Your task to perform on an android device: Open Youtube and go to the subscriptions tab Image 0: 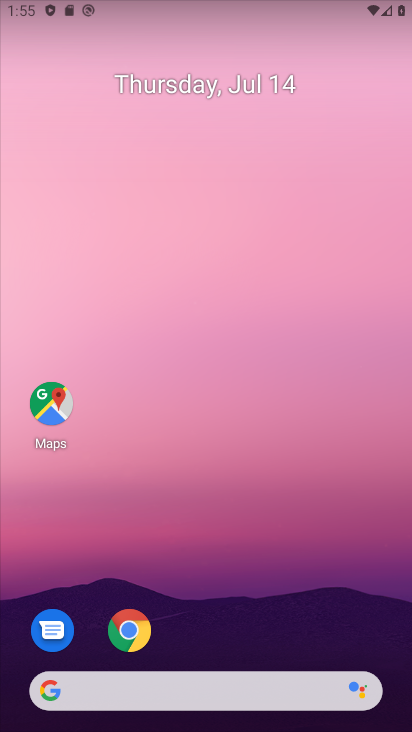
Step 0: press home button
Your task to perform on an android device: Open Youtube and go to the subscriptions tab Image 1: 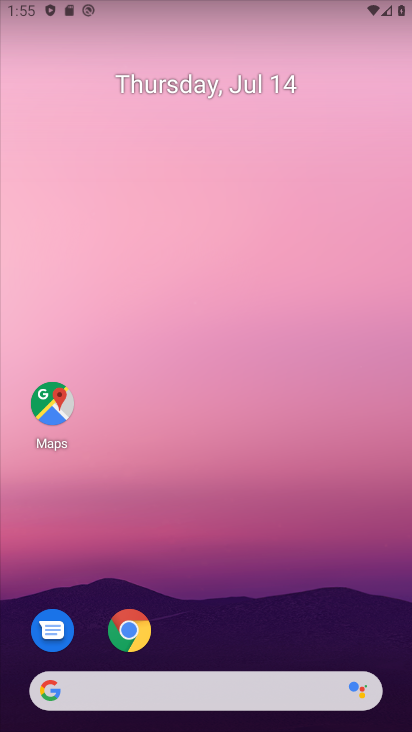
Step 1: drag from (196, 646) to (201, 51)
Your task to perform on an android device: Open Youtube and go to the subscriptions tab Image 2: 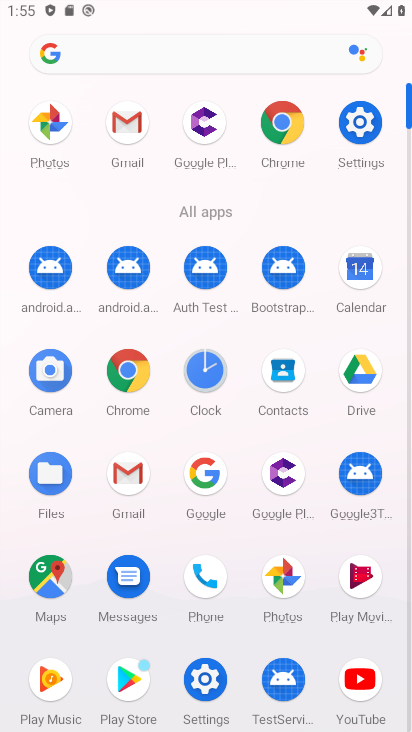
Step 2: click (353, 670)
Your task to perform on an android device: Open Youtube and go to the subscriptions tab Image 3: 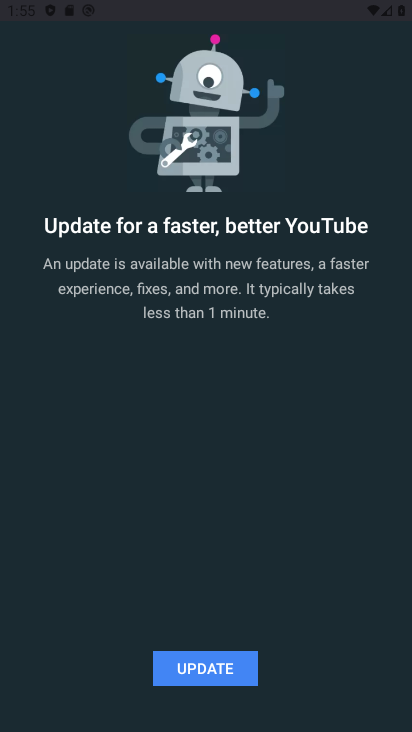
Step 3: click (209, 668)
Your task to perform on an android device: Open Youtube and go to the subscriptions tab Image 4: 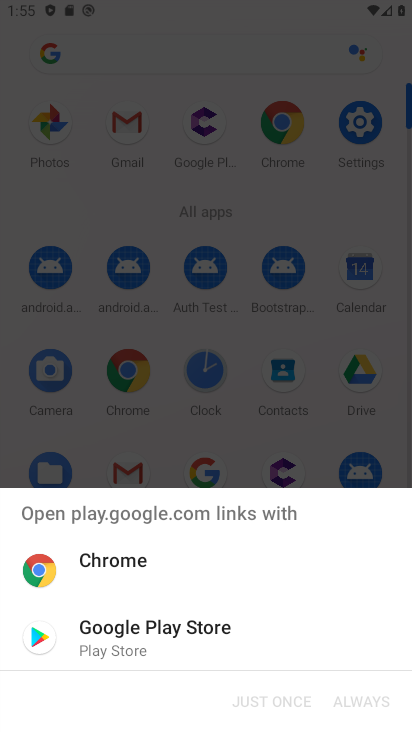
Step 4: click (170, 643)
Your task to perform on an android device: Open Youtube and go to the subscriptions tab Image 5: 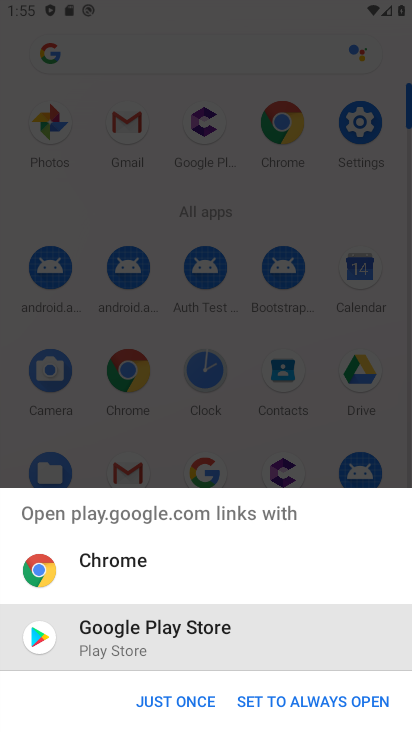
Step 5: click (170, 699)
Your task to perform on an android device: Open Youtube and go to the subscriptions tab Image 6: 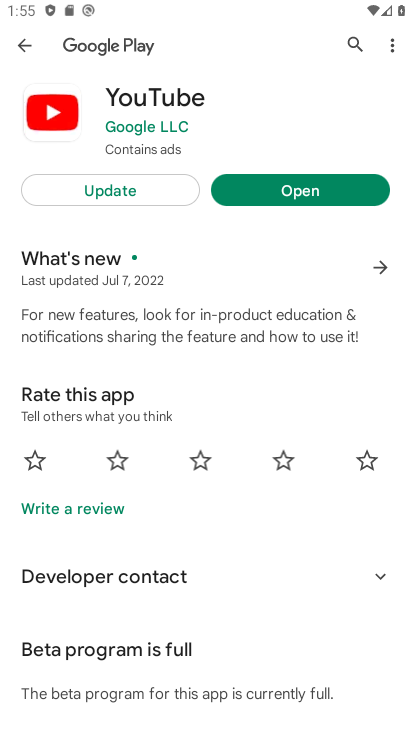
Step 6: click (110, 187)
Your task to perform on an android device: Open Youtube and go to the subscriptions tab Image 7: 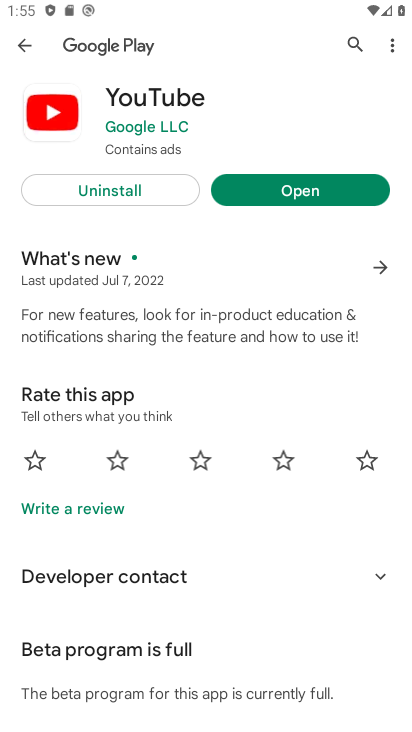
Step 7: click (305, 185)
Your task to perform on an android device: Open Youtube and go to the subscriptions tab Image 8: 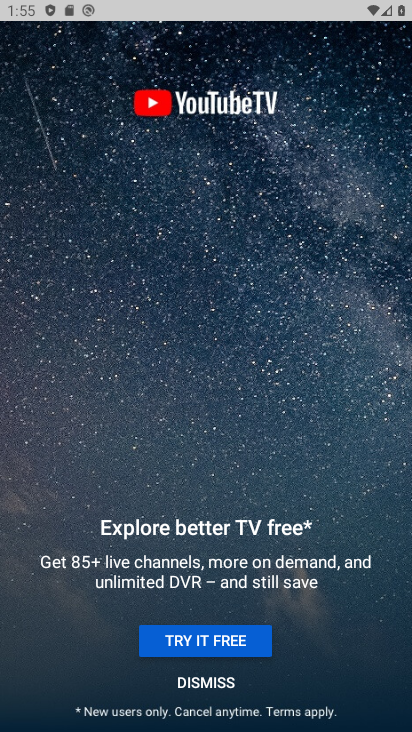
Step 8: click (207, 685)
Your task to perform on an android device: Open Youtube and go to the subscriptions tab Image 9: 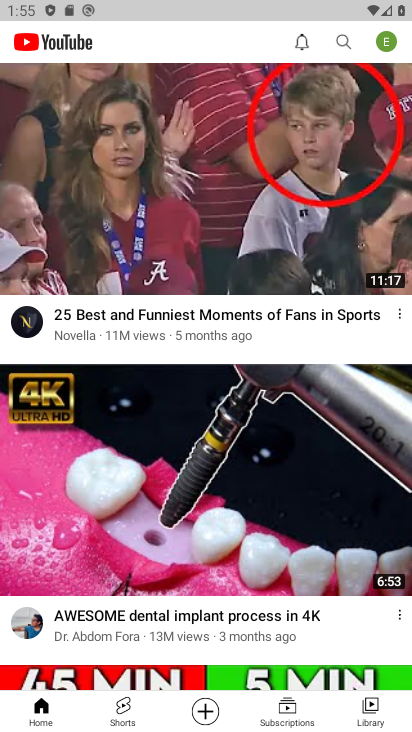
Step 9: click (284, 711)
Your task to perform on an android device: Open Youtube and go to the subscriptions tab Image 10: 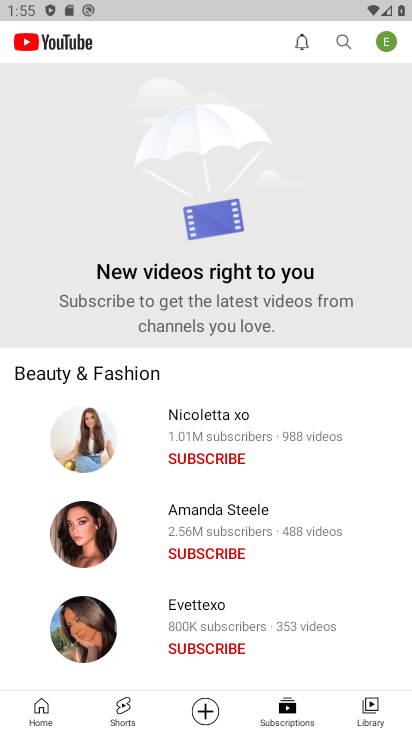
Step 10: task complete